Your task to perform on an android device: turn on bluetooth scan Image 0: 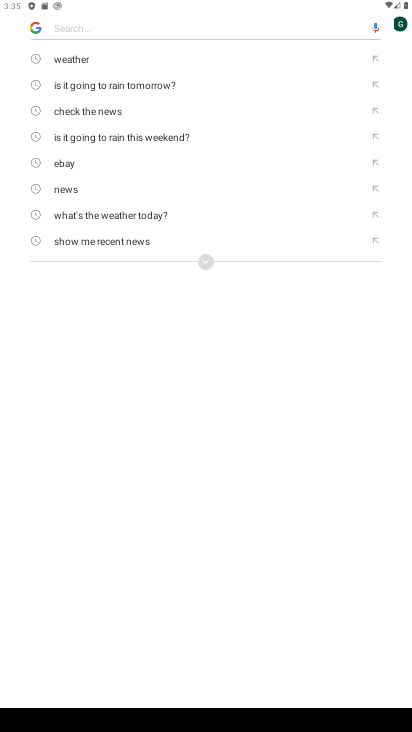
Step 0: press home button
Your task to perform on an android device: turn on bluetooth scan Image 1: 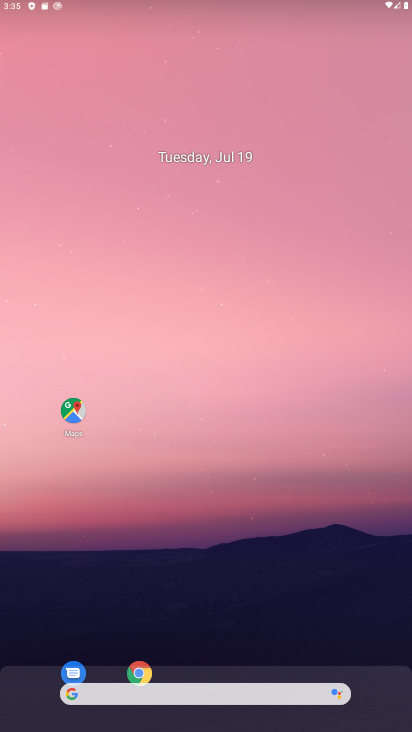
Step 1: drag from (221, 597) to (303, 1)
Your task to perform on an android device: turn on bluetooth scan Image 2: 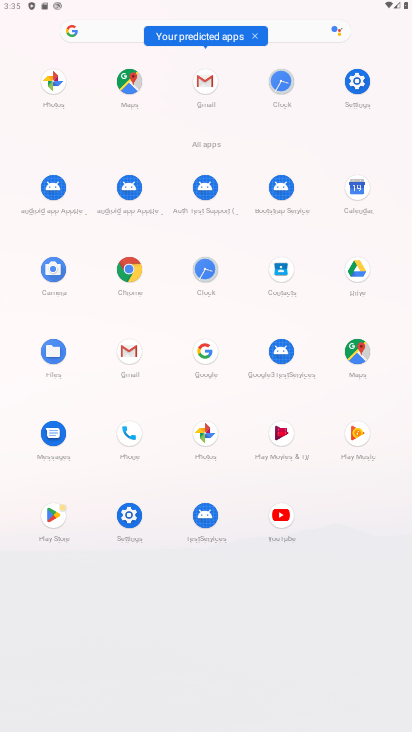
Step 2: click (363, 77)
Your task to perform on an android device: turn on bluetooth scan Image 3: 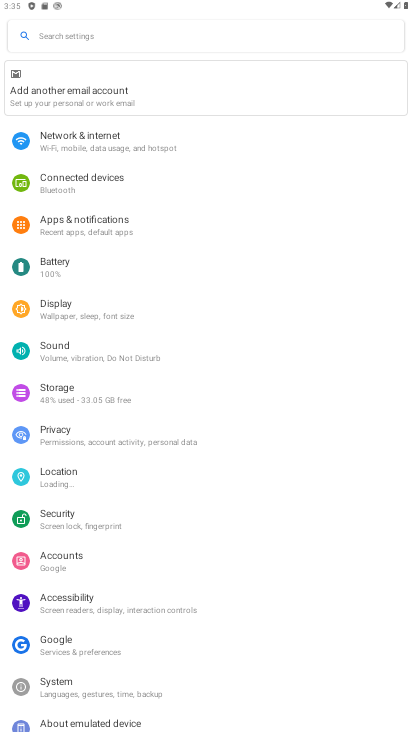
Step 3: click (75, 474)
Your task to perform on an android device: turn on bluetooth scan Image 4: 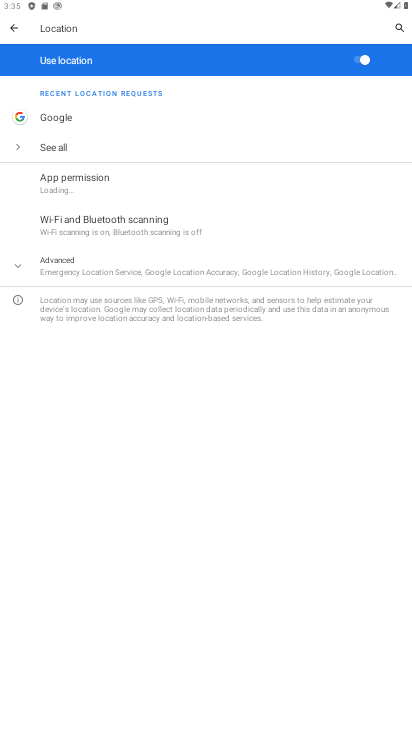
Step 4: click (139, 228)
Your task to perform on an android device: turn on bluetooth scan Image 5: 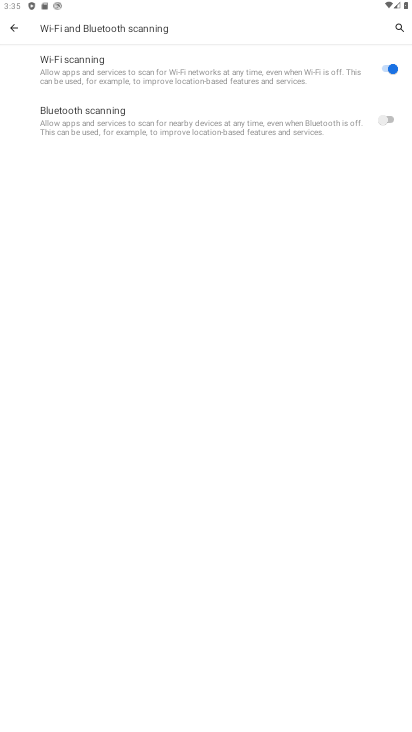
Step 5: click (389, 114)
Your task to perform on an android device: turn on bluetooth scan Image 6: 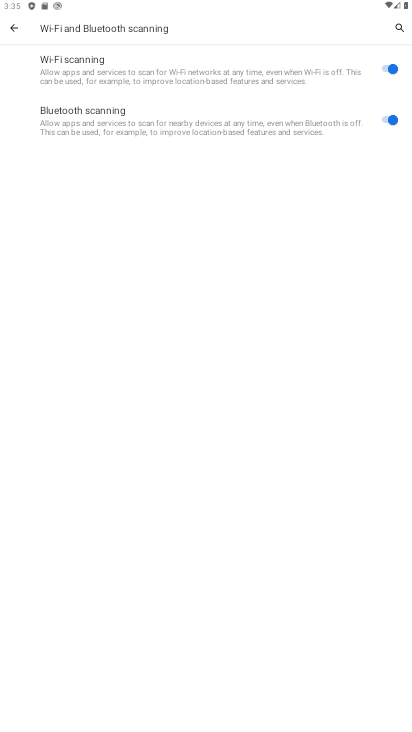
Step 6: task complete